Your task to perform on an android device: Open maps Image 0: 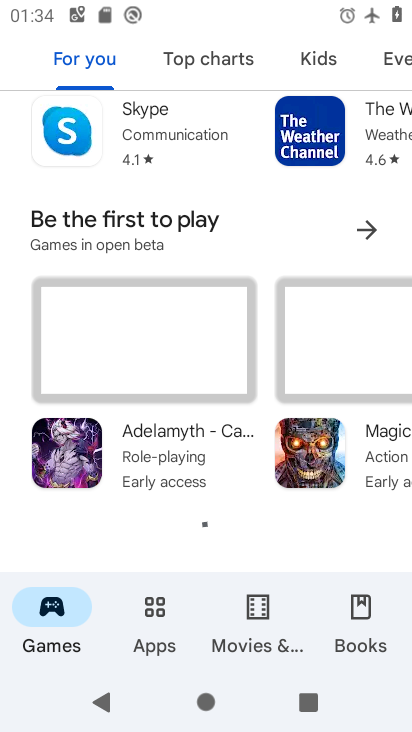
Step 0: press home button
Your task to perform on an android device: Open maps Image 1: 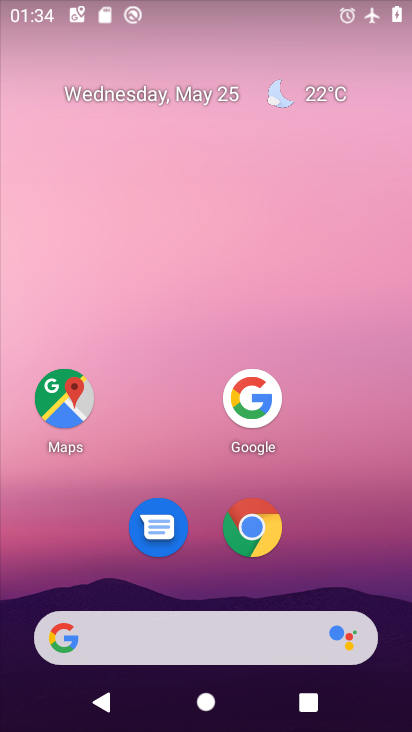
Step 1: click (66, 402)
Your task to perform on an android device: Open maps Image 2: 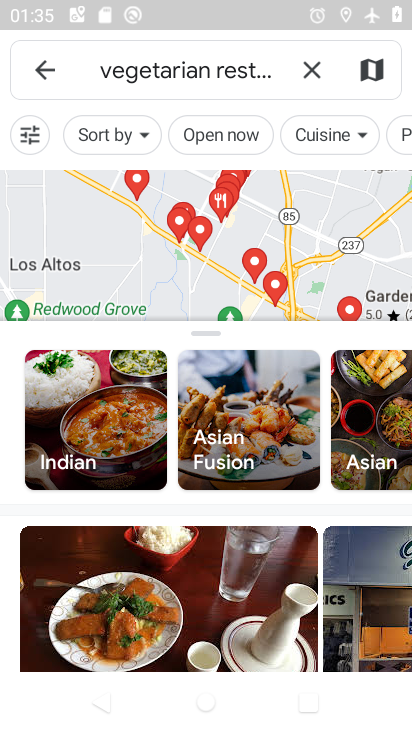
Step 2: task complete